Your task to perform on an android device: toggle notification dots Image 0: 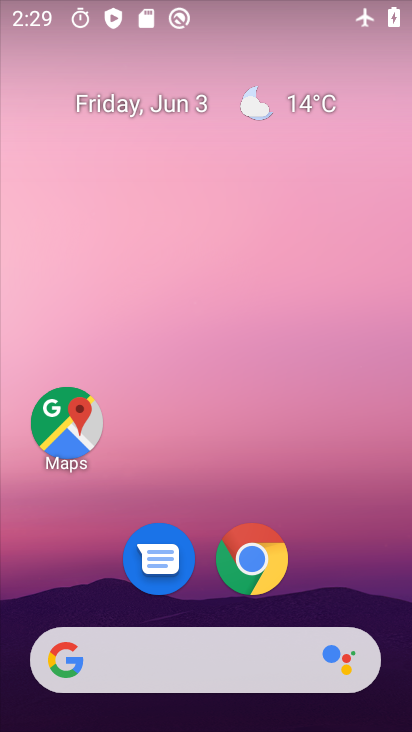
Step 0: drag from (191, 610) to (89, 70)
Your task to perform on an android device: toggle notification dots Image 1: 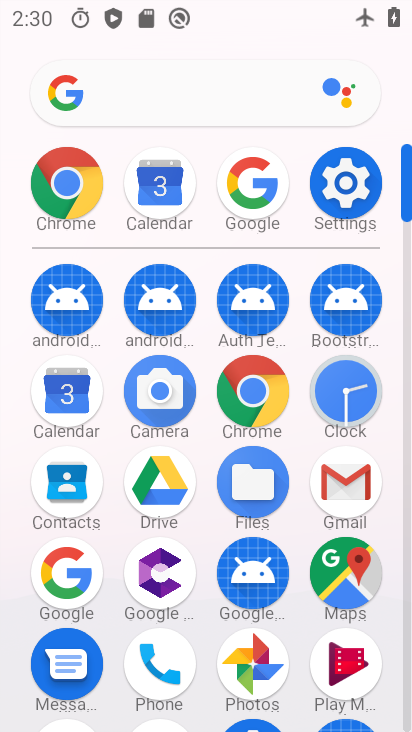
Step 1: click (358, 196)
Your task to perform on an android device: toggle notification dots Image 2: 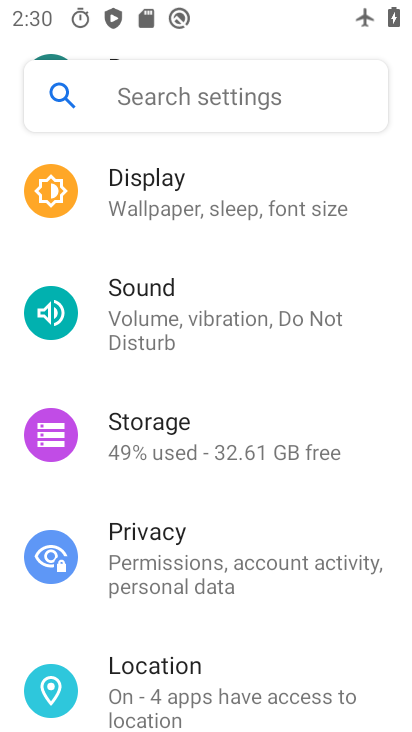
Step 2: drag from (269, 533) to (206, 136)
Your task to perform on an android device: toggle notification dots Image 3: 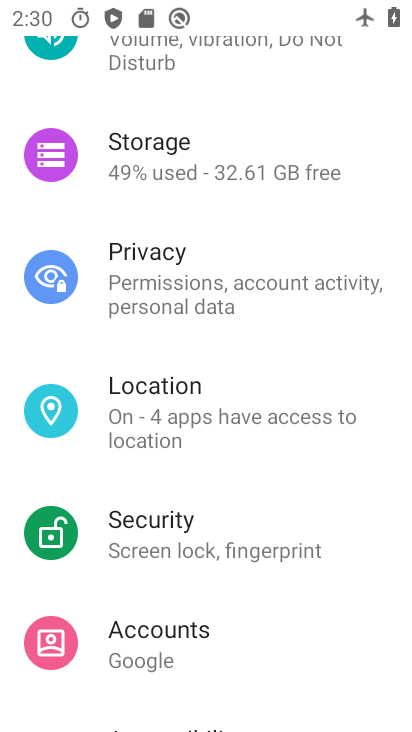
Step 3: drag from (187, 504) to (151, 728)
Your task to perform on an android device: toggle notification dots Image 4: 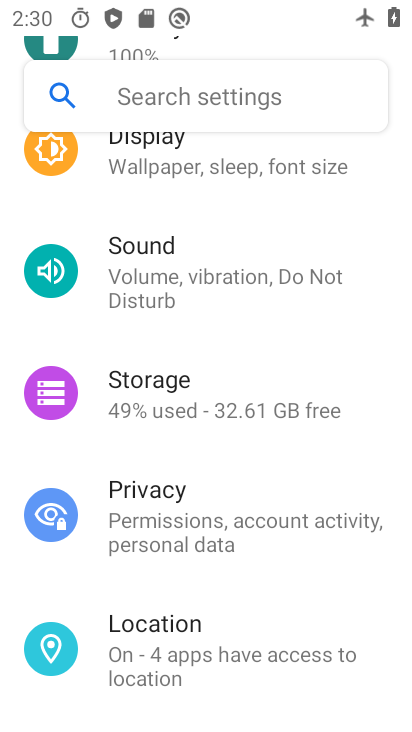
Step 4: drag from (192, 184) to (175, 690)
Your task to perform on an android device: toggle notification dots Image 5: 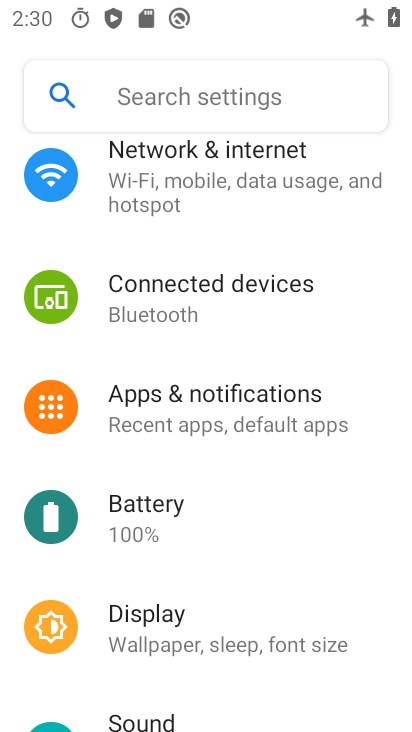
Step 5: click (194, 429)
Your task to perform on an android device: toggle notification dots Image 6: 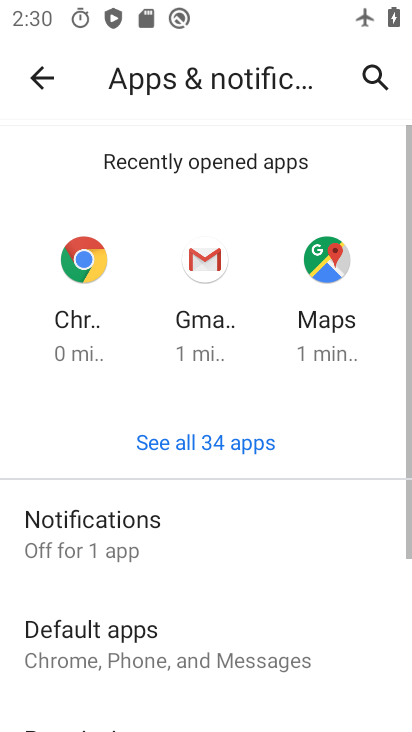
Step 6: click (136, 559)
Your task to perform on an android device: toggle notification dots Image 7: 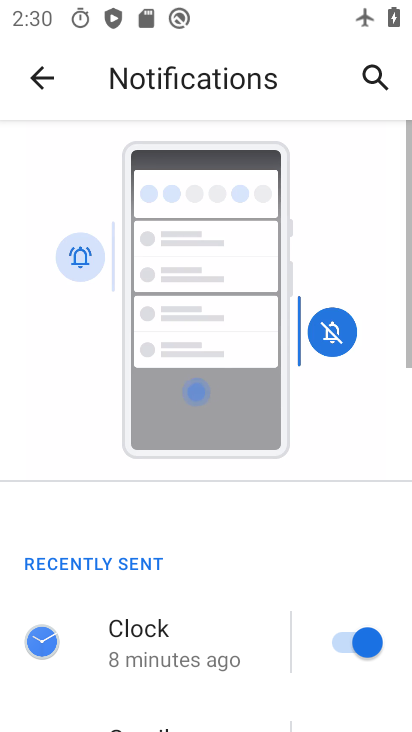
Step 7: drag from (259, 603) to (205, 4)
Your task to perform on an android device: toggle notification dots Image 8: 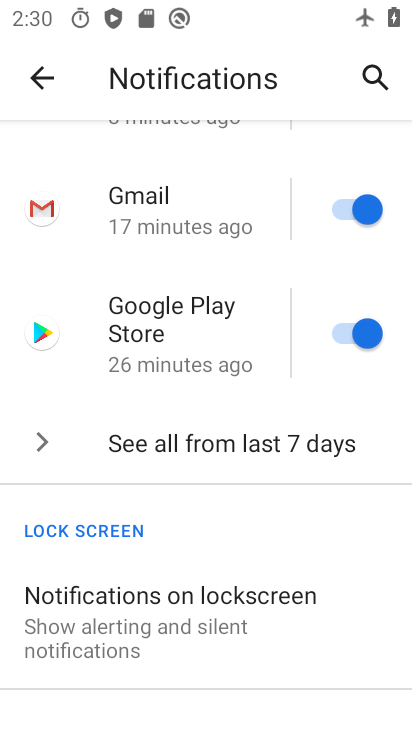
Step 8: drag from (220, 584) to (153, 0)
Your task to perform on an android device: toggle notification dots Image 9: 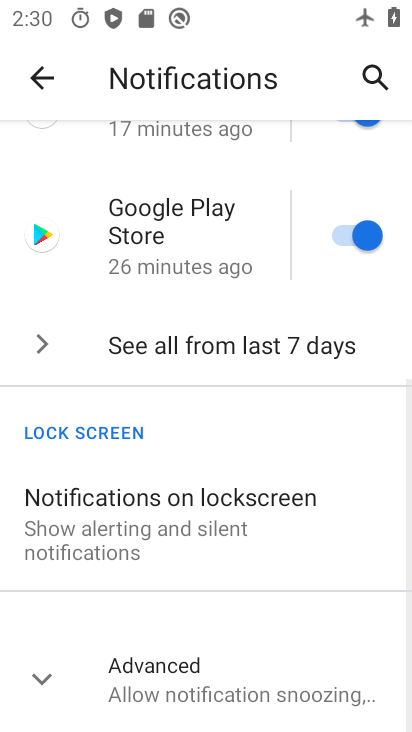
Step 9: click (171, 648)
Your task to perform on an android device: toggle notification dots Image 10: 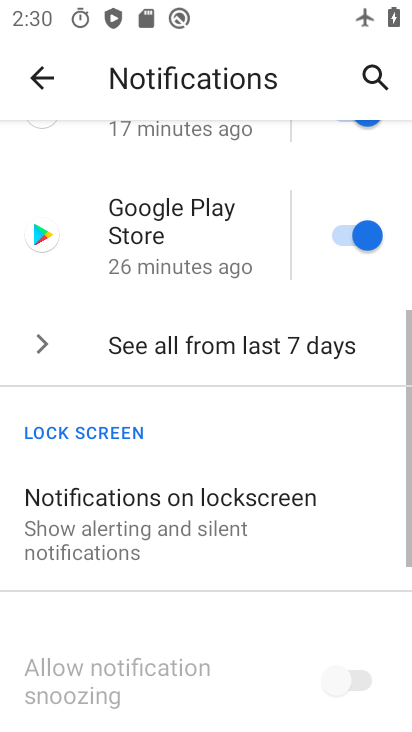
Step 10: drag from (171, 648) to (77, 99)
Your task to perform on an android device: toggle notification dots Image 11: 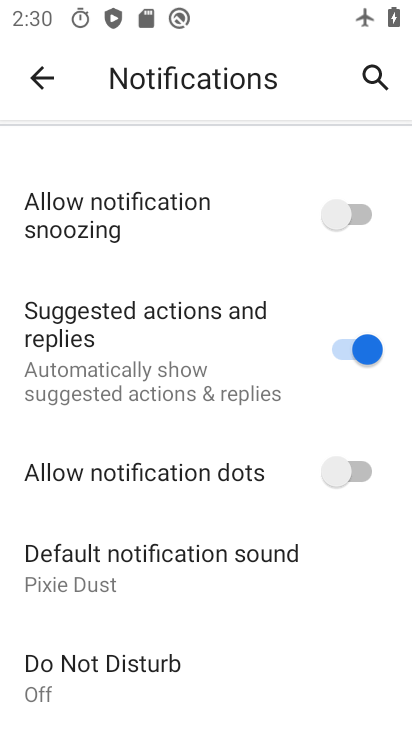
Step 11: click (321, 467)
Your task to perform on an android device: toggle notification dots Image 12: 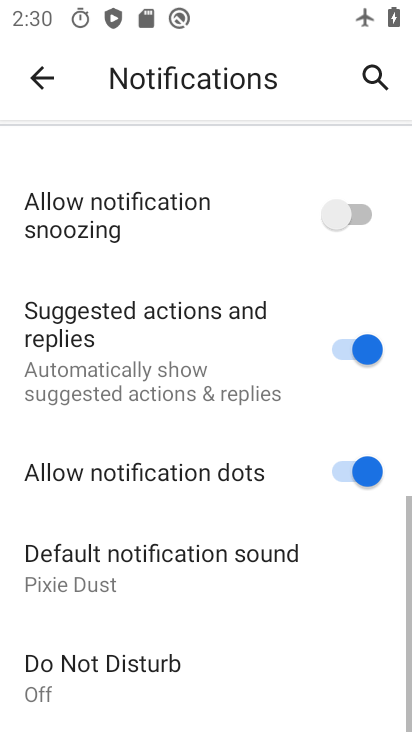
Step 12: task complete